Your task to perform on an android device: Open calendar and show me the third week of next month Image 0: 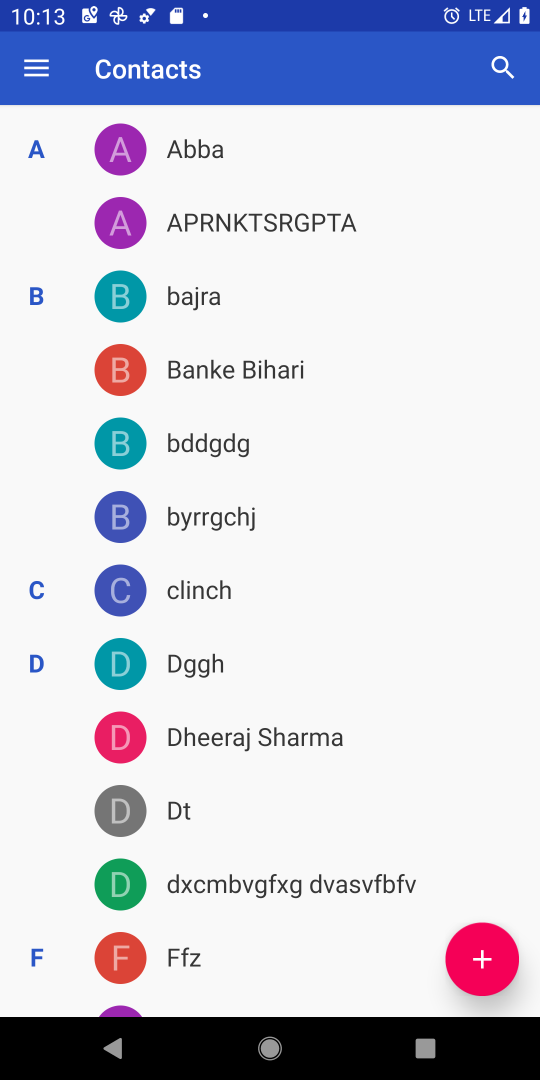
Step 0: press home button
Your task to perform on an android device: Open calendar and show me the third week of next month Image 1: 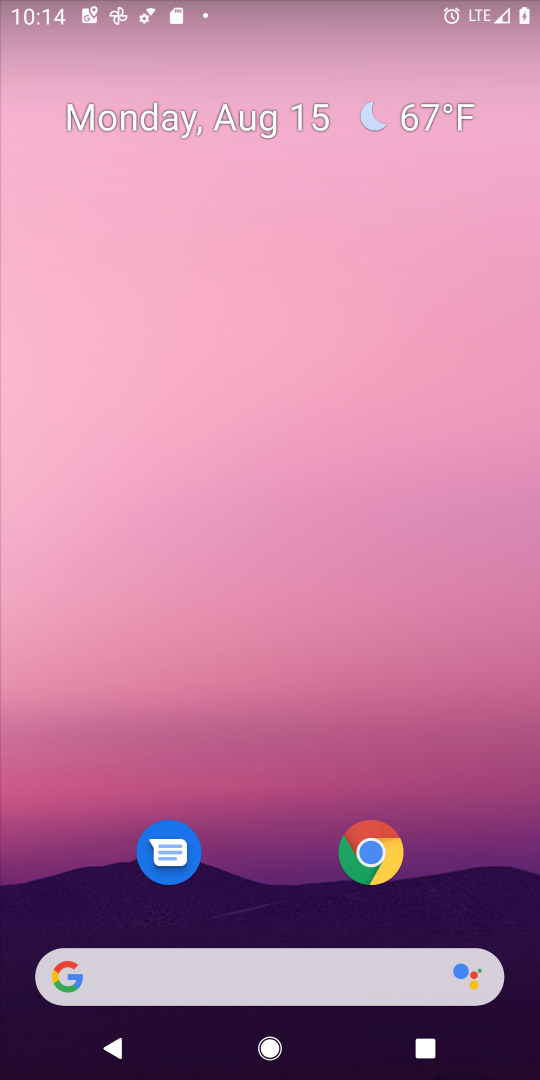
Step 1: drag from (268, 990) to (355, 78)
Your task to perform on an android device: Open calendar and show me the third week of next month Image 2: 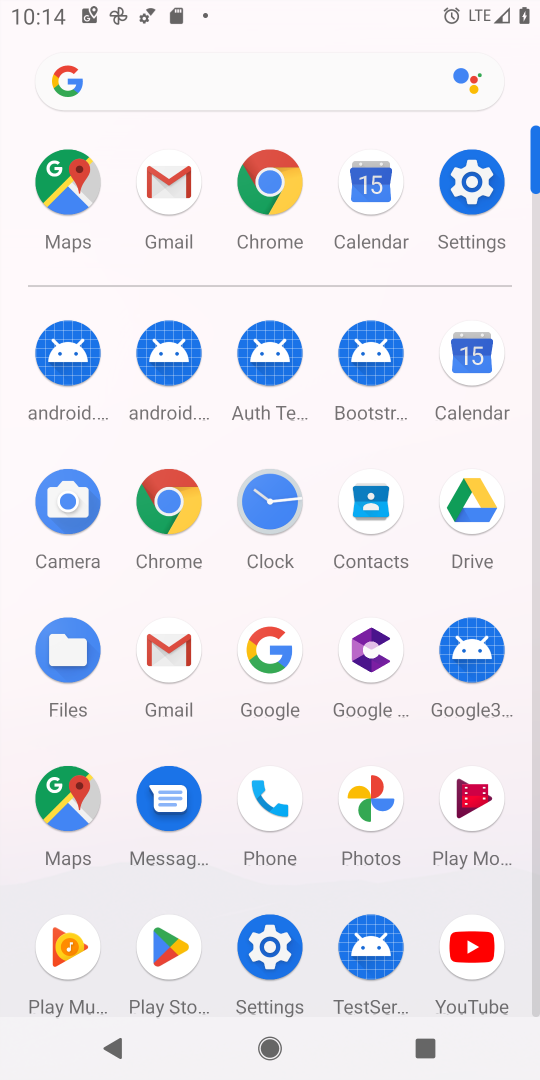
Step 2: click (372, 187)
Your task to perform on an android device: Open calendar and show me the third week of next month Image 3: 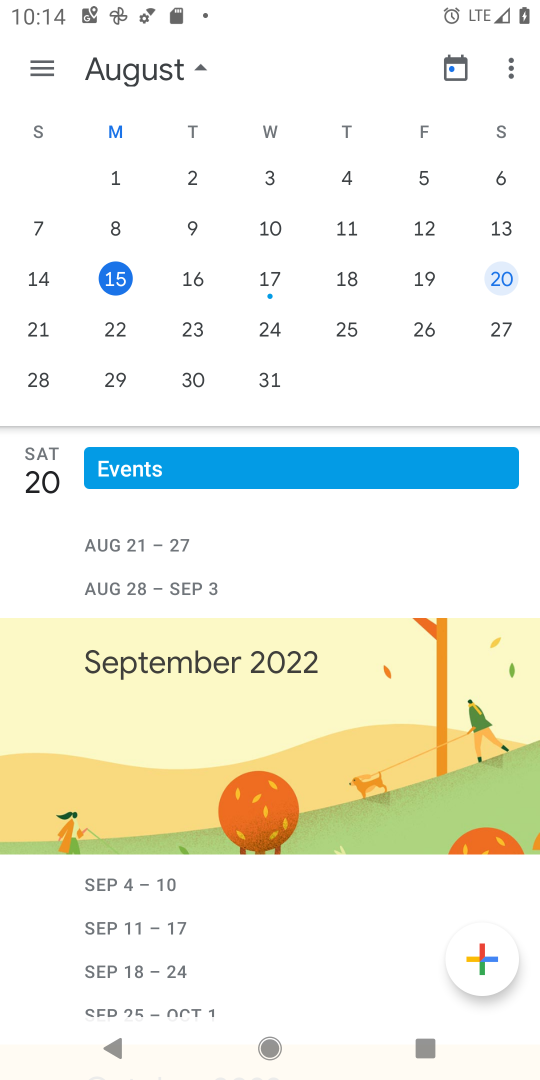
Step 3: click (451, 72)
Your task to perform on an android device: Open calendar and show me the third week of next month Image 4: 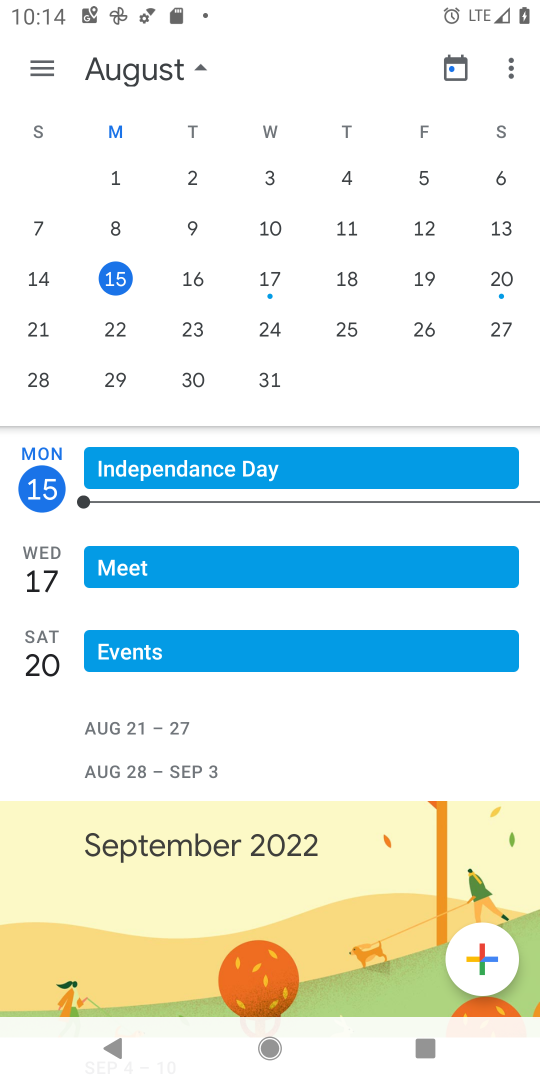
Step 4: drag from (475, 303) to (13, 325)
Your task to perform on an android device: Open calendar and show me the third week of next month Image 5: 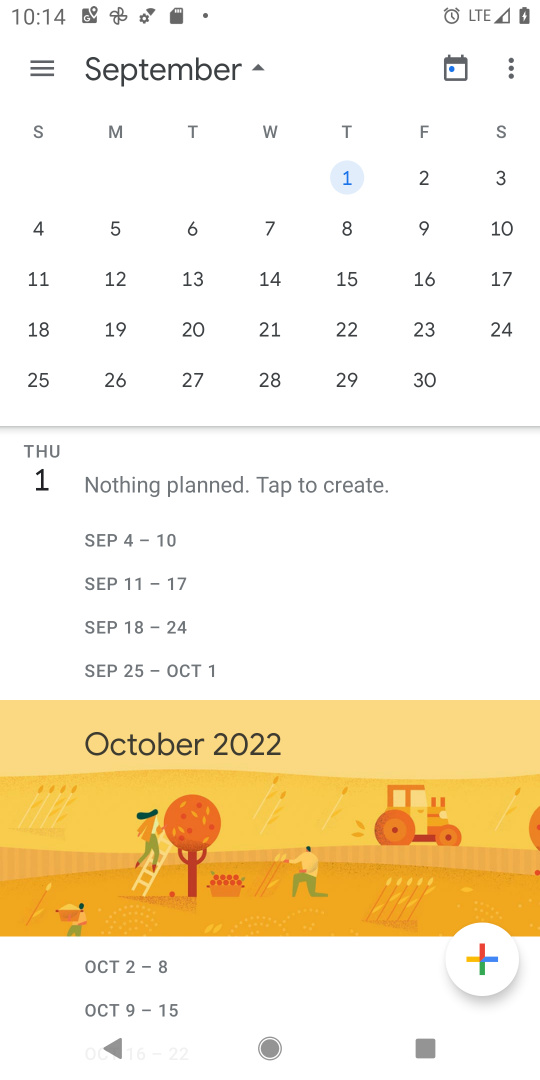
Step 5: click (115, 332)
Your task to perform on an android device: Open calendar and show me the third week of next month Image 6: 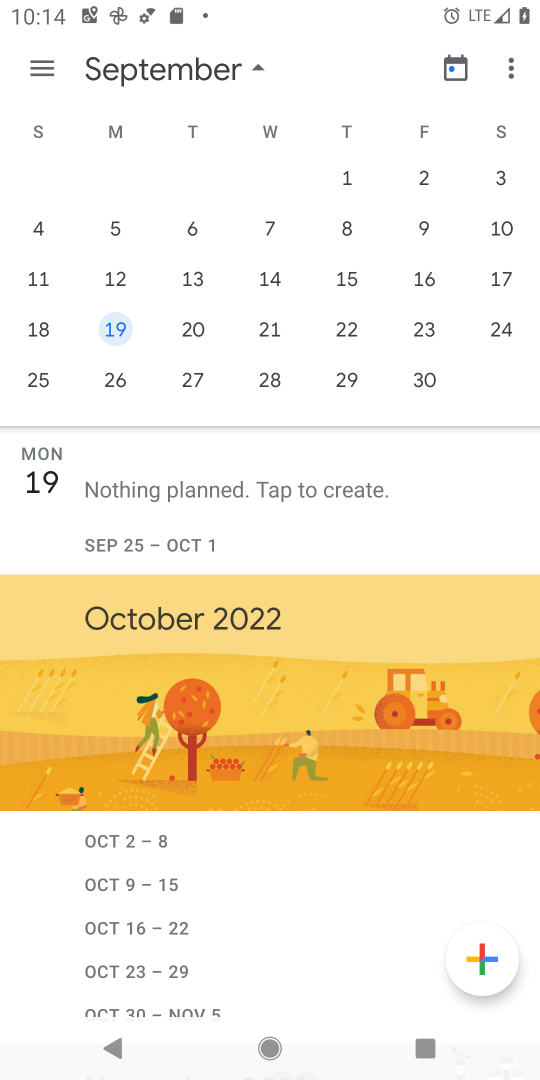
Step 6: click (36, 68)
Your task to perform on an android device: Open calendar and show me the third week of next month Image 7: 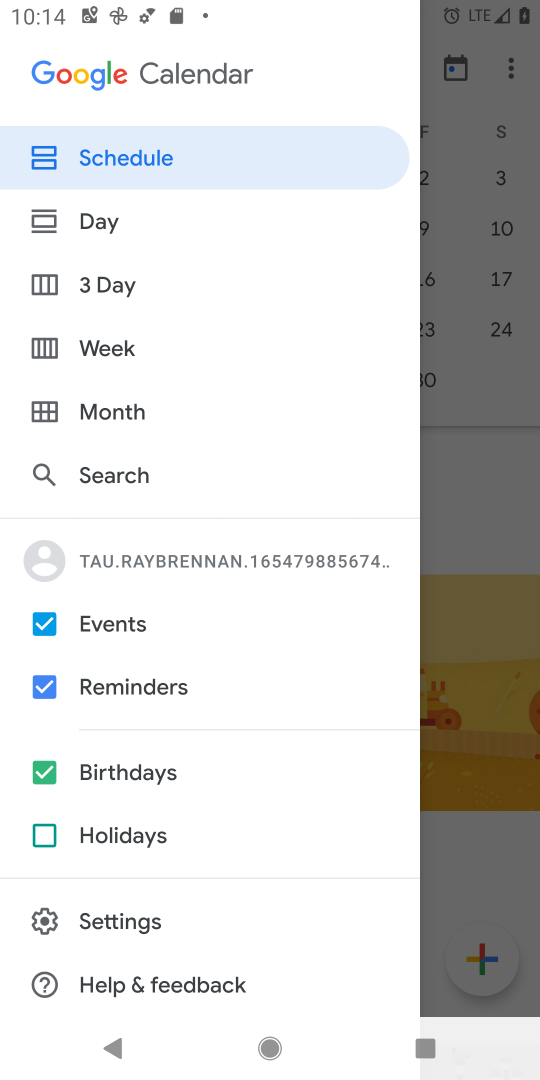
Step 7: click (102, 347)
Your task to perform on an android device: Open calendar and show me the third week of next month Image 8: 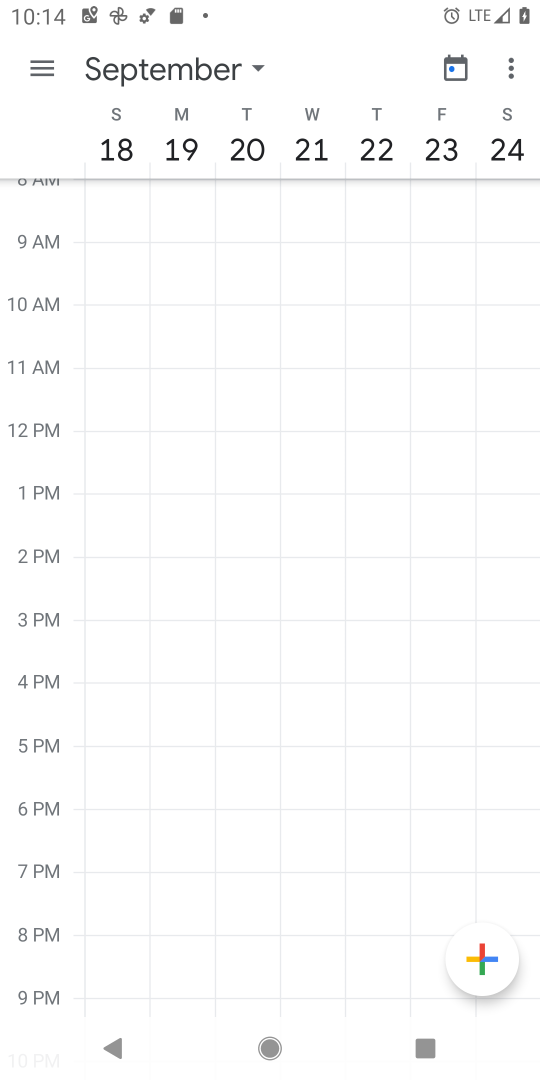
Step 8: task complete